Your task to perform on an android device: open a bookmark in the chrome app Image 0: 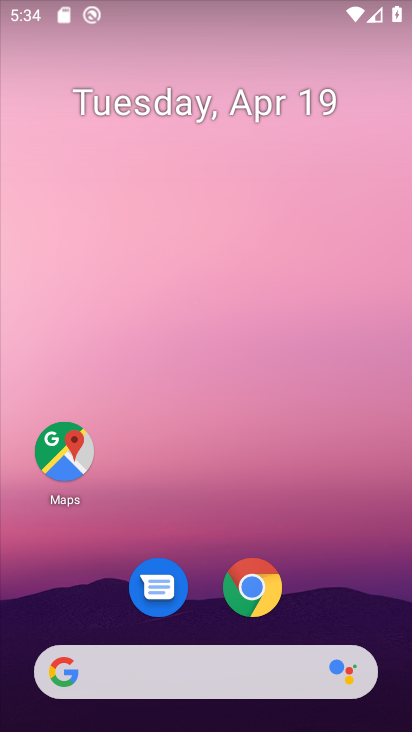
Step 0: click (372, 82)
Your task to perform on an android device: open a bookmark in the chrome app Image 1: 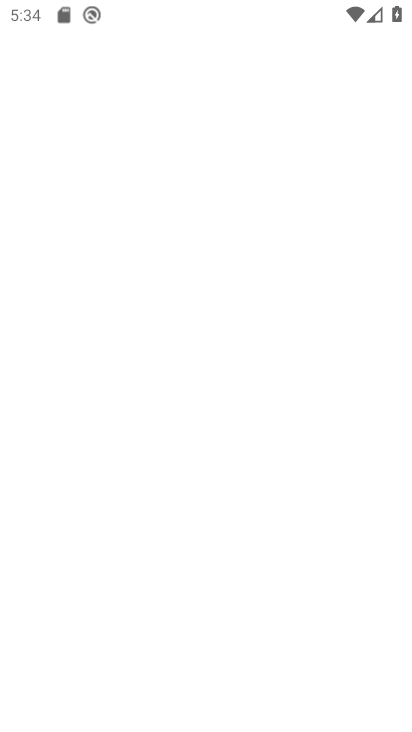
Step 1: drag from (329, 615) to (321, 94)
Your task to perform on an android device: open a bookmark in the chrome app Image 2: 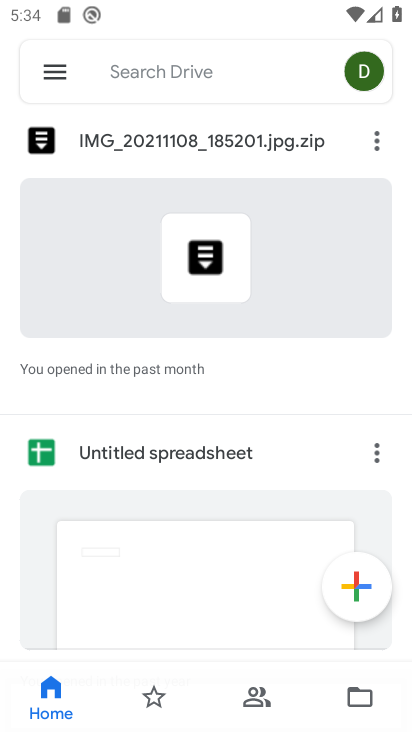
Step 2: press home button
Your task to perform on an android device: open a bookmark in the chrome app Image 3: 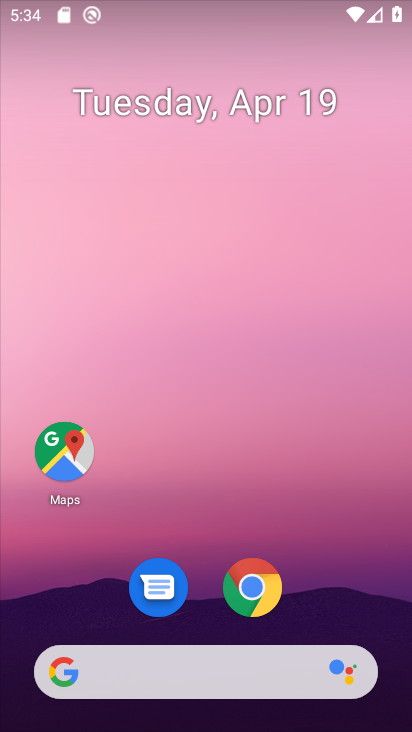
Step 3: click (253, 578)
Your task to perform on an android device: open a bookmark in the chrome app Image 4: 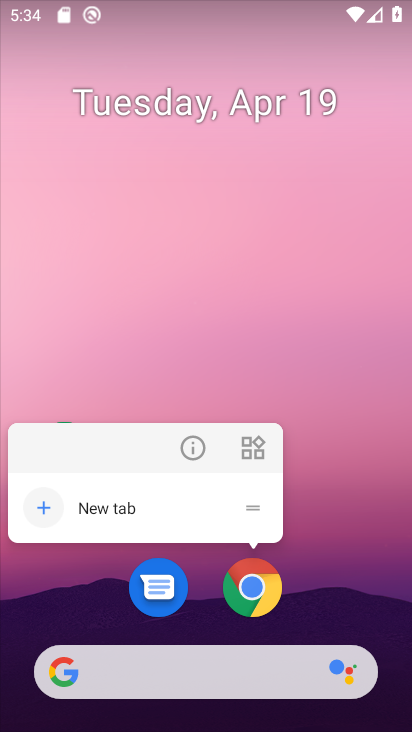
Step 4: click (253, 578)
Your task to perform on an android device: open a bookmark in the chrome app Image 5: 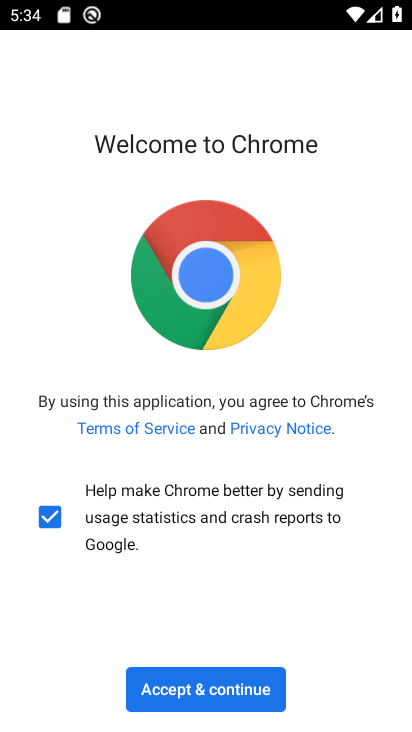
Step 5: click (208, 693)
Your task to perform on an android device: open a bookmark in the chrome app Image 6: 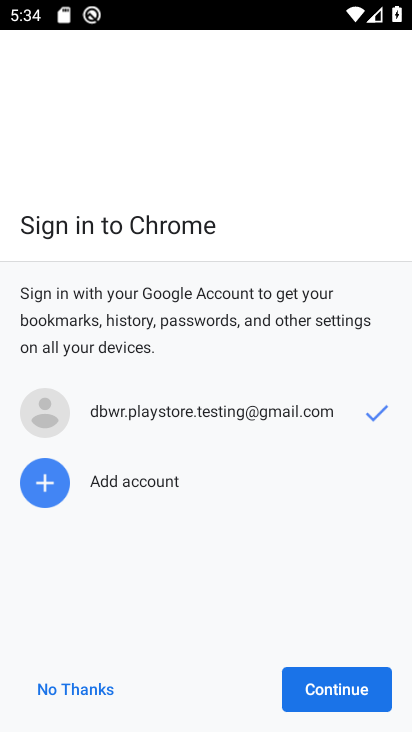
Step 6: click (315, 690)
Your task to perform on an android device: open a bookmark in the chrome app Image 7: 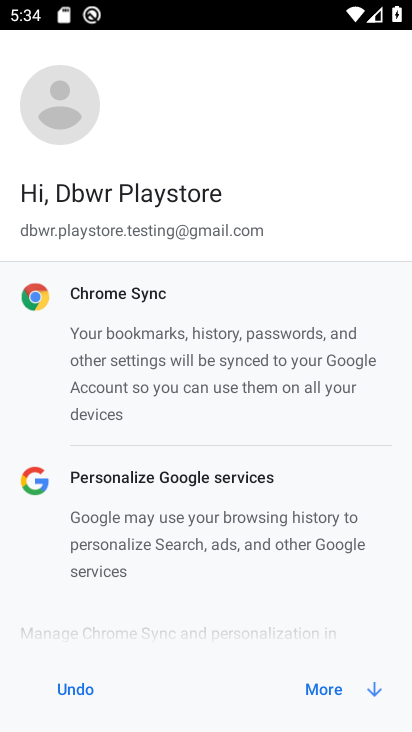
Step 7: click (332, 685)
Your task to perform on an android device: open a bookmark in the chrome app Image 8: 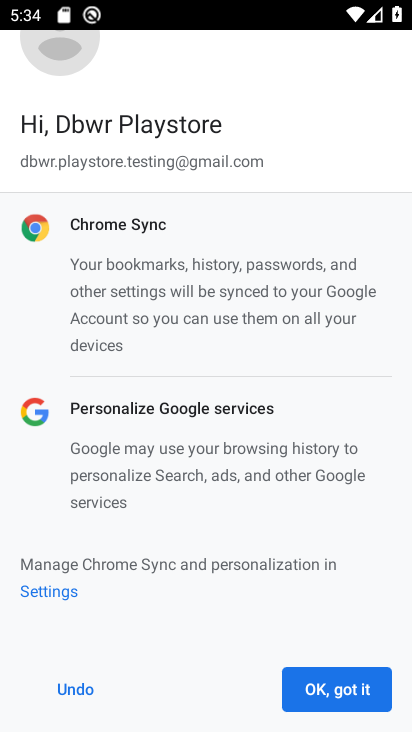
Step 8: click (332, 684)
Your task to perform on an android device: open a bookmark in the chrome app Image 9: 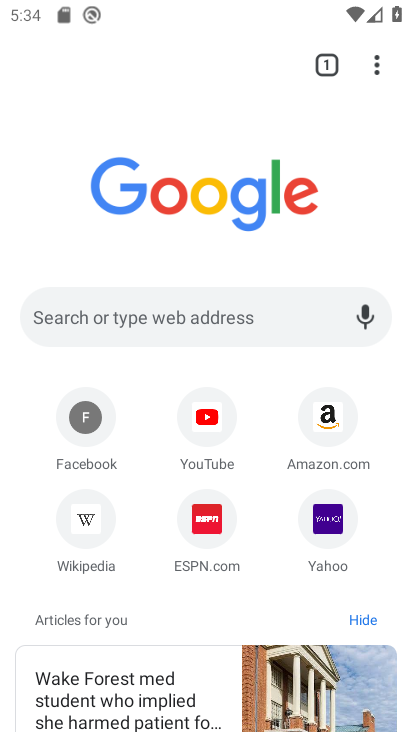
Step 9: click (374, 75)
Your task to perform on an android device: open a bookmark in the chrome app Image 10: 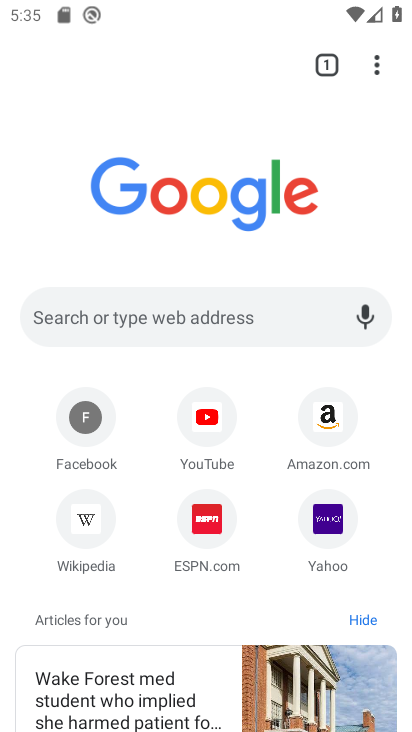
Step 10: click (378, 75)
Your task to perform on an android device: open a bookmark in the chrome app Image 11: 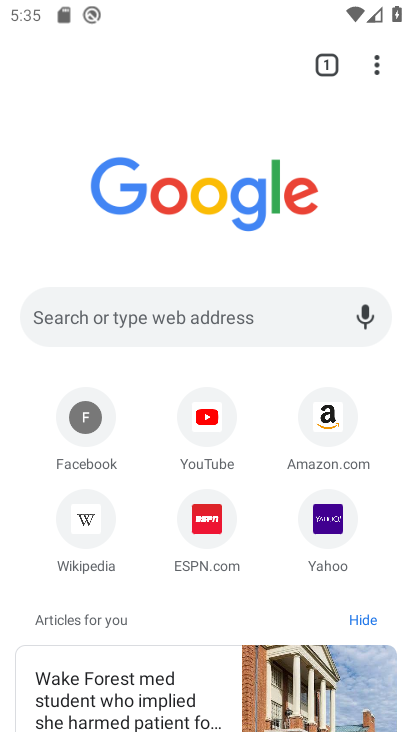
Step 11: click (375, 63)
Your task to perform on an android device: open a bookmark in the chrome app Image 12: 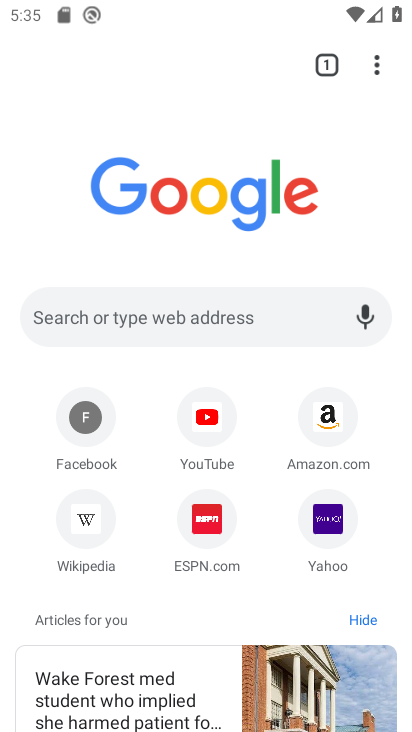
Step 12: click (373, 63)
Your task to perform on an android device: open a bookmark in the chrome app Image 13: 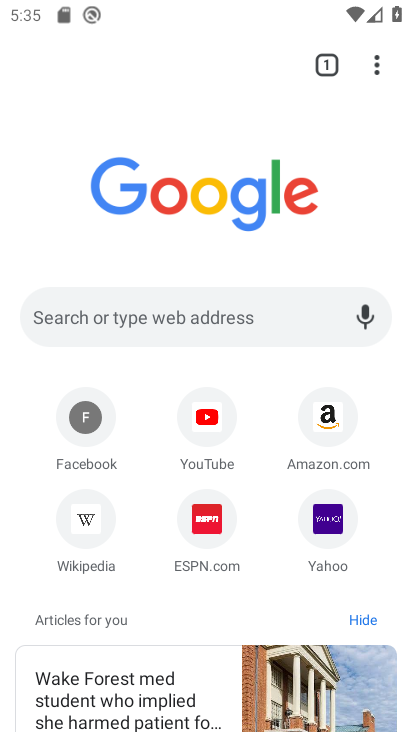
Step 13: click (383, 61)
Your task to perform on an android device: open a bookmark in the chrome app Image 14: 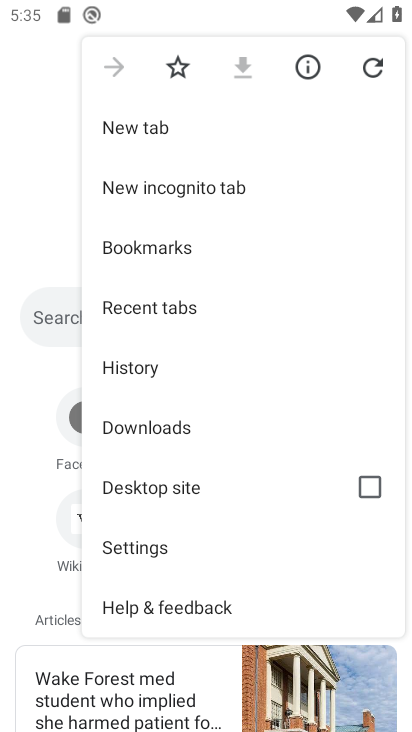
Step 14: click (165, 242)
Your task to perform on an android device: open a bookmark in the chrome app Image 15: 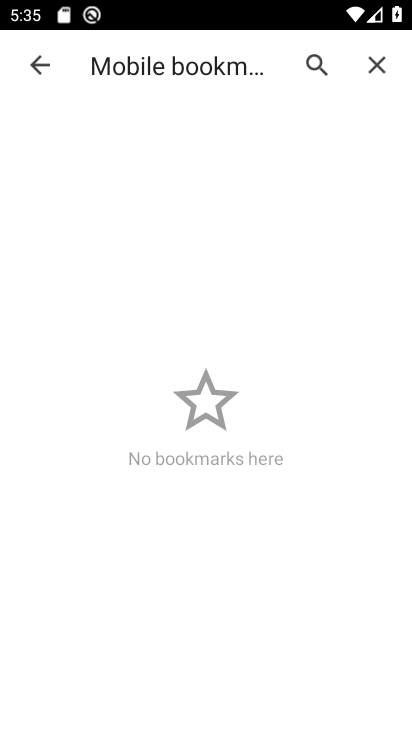
Step 15: task complete